Your task to perform on an android device: choose inbox layout in the gmail app Image 0: 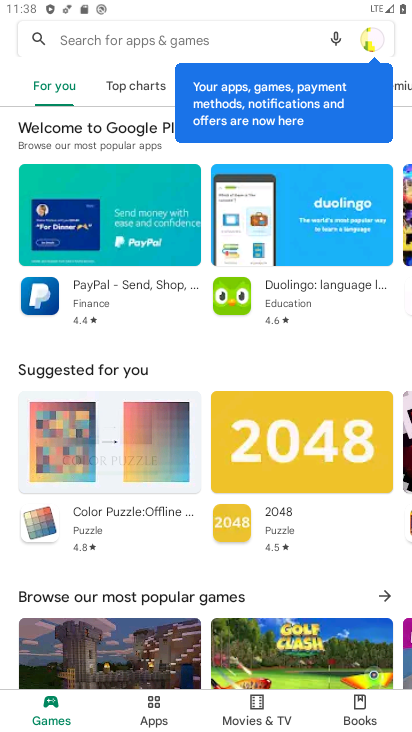
Step 0: press home button
Your task to perform on an android device: choose inbox layout in the gmail app Image 1: 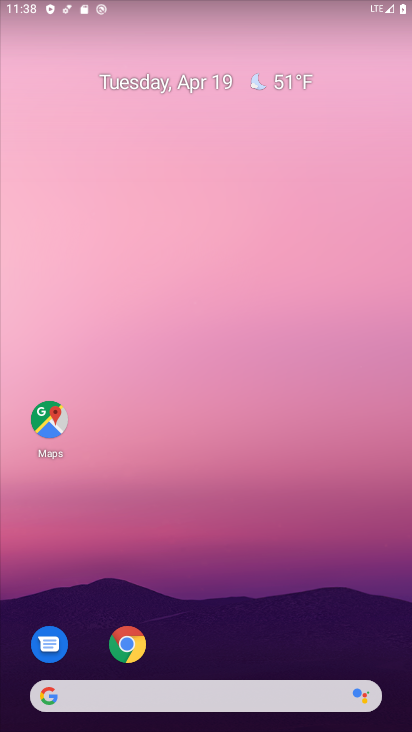
Step 1: drag from (218, 727) to (222, 155)
Your task to perform on an android device: choose inbox layout in the gmail app Image 2: 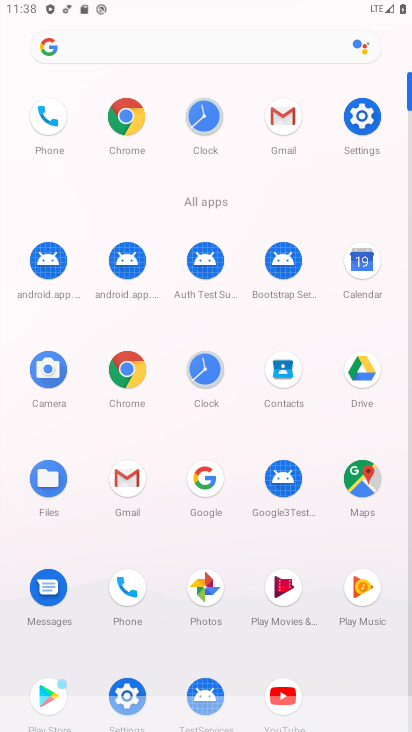
Step 2: click (128, 481)
Your task to perform on an android device: choose inbox layout in the gmail app Image 3: 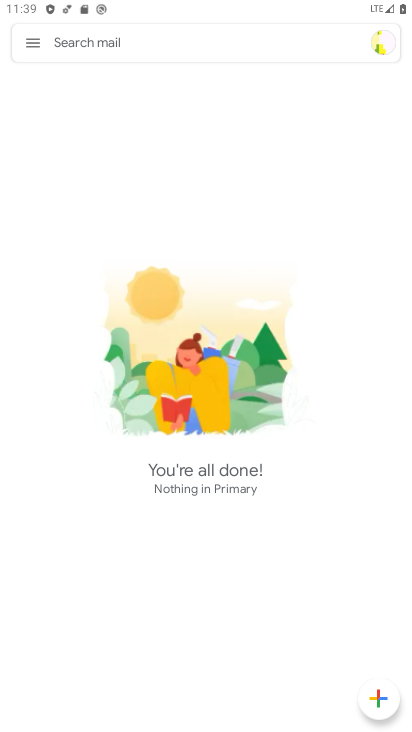
Step 3: click (32, 45)
Your task to perform on an android device: choose inbox layout in the gmail app Image 4: 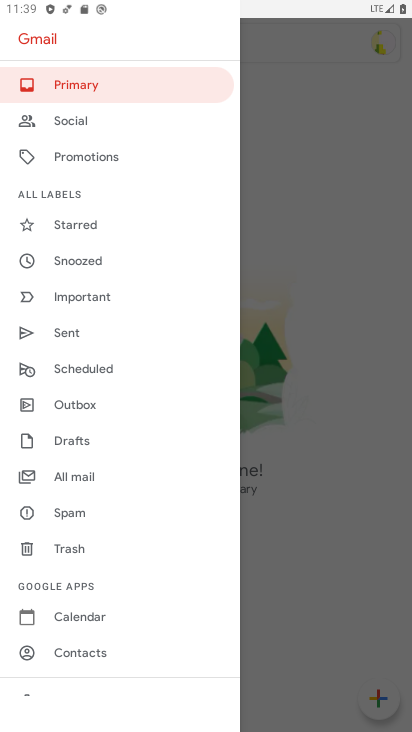
Step 4: drag from (96, 629) to (86, 205)
Your task to perform on an android device: choose inbox layout in the gmail app Image 5: 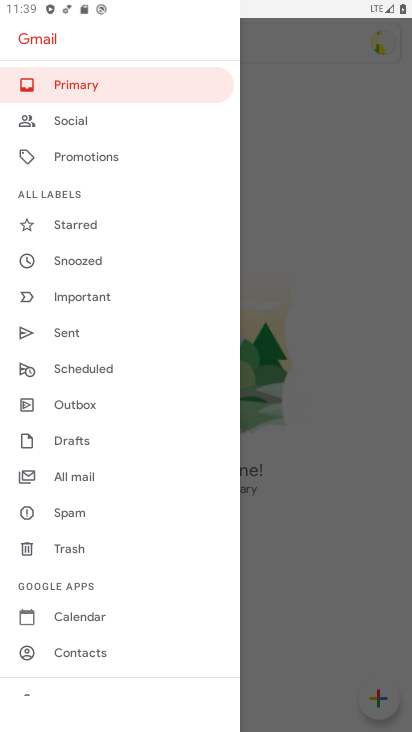
Step 5: drag from (76, 636) to (95, 230)
Your task to perform on an android device: choose inbox layout in the gmail app Image 6: 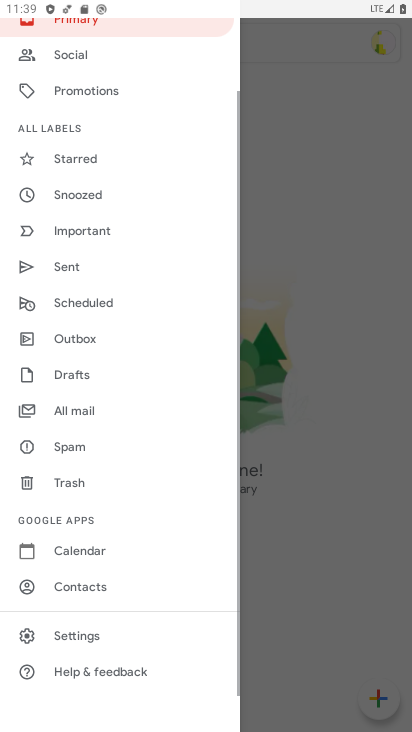
Step 6: click (74, 636)
Your task to perform on an android device: choose inbox layout in the gmail app Image 7: 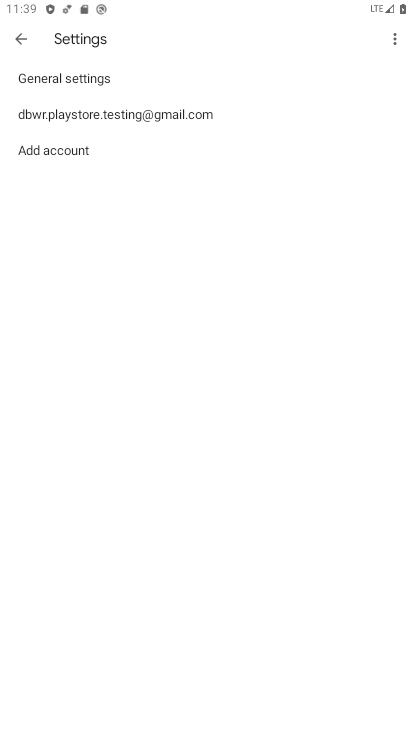
Step 7: click (116, 114)
Your task to perform on an android device: choose inbox layout in the gmail app Image 8: 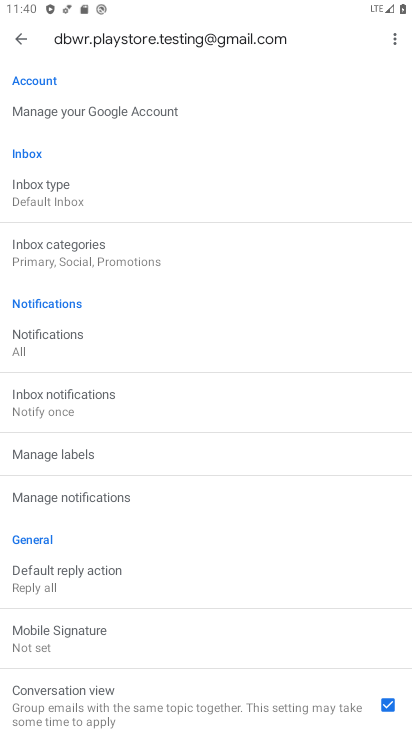
Step 8: click (37, 192)
Your task to perform on an android device: choose inbox layout in the gmail app Image 9: 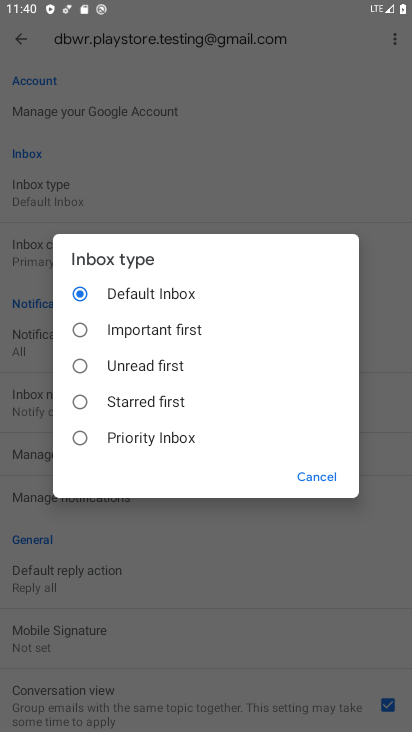
Step 9: click (77, 330)
Your task to perform on an android device: choose inbox layout in the gmail app Image 10: 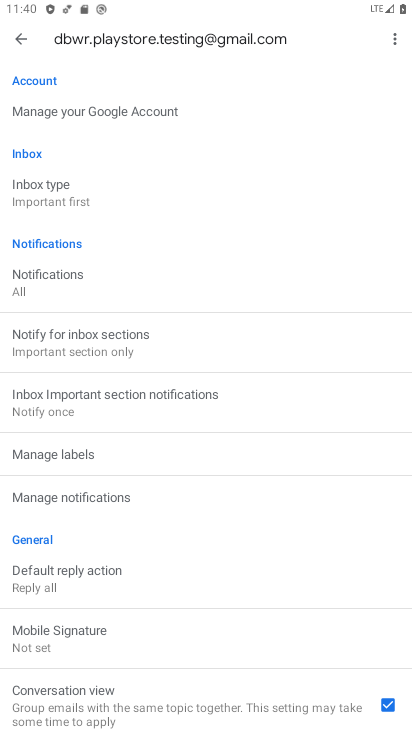
Step 10: task complete